Your task to perform on an android device: toggle pop-ups in chrome Image 0: 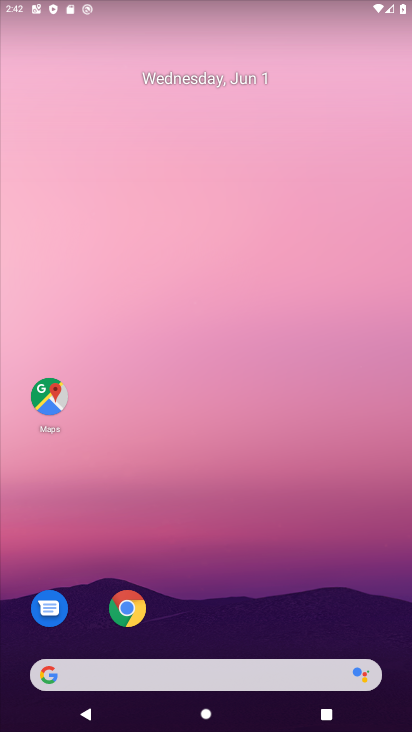
Step 0: click (124, 612)
Your task to perform on an android device: toggle pop-ups in chrome Image 1: 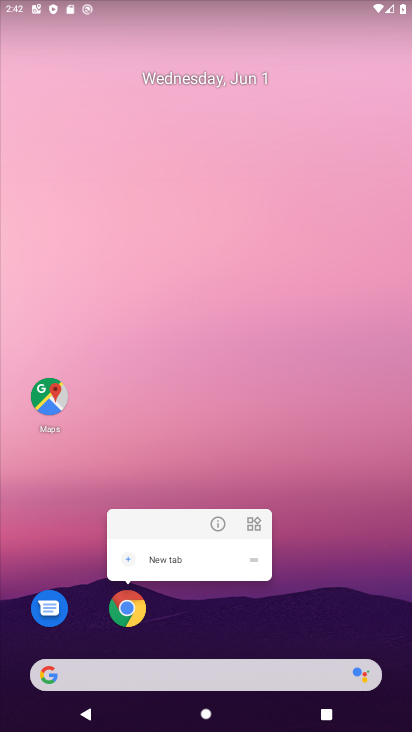
Step 1: click (124, 612)
Your task to perform on an android device: toggle pop-ups in chrome Image 2: 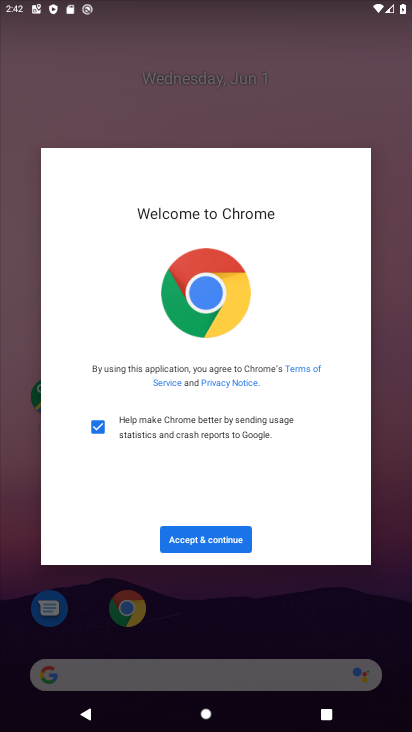
Step 2: click (221, 538)
Your task to perform on an android device: toggle pop-ups in chrome Image 3: 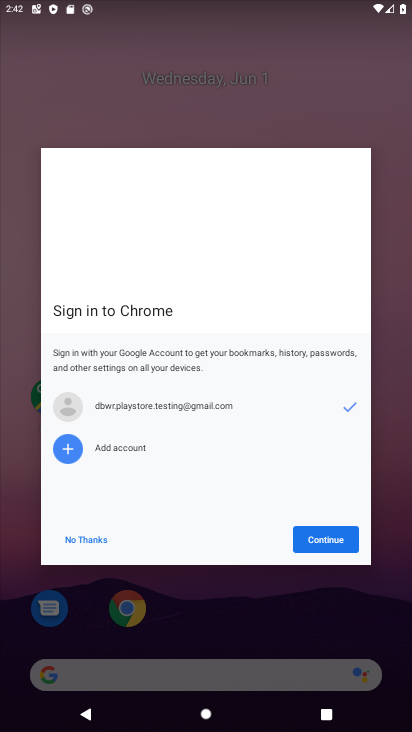
Step 3: click (344, 532)
Your task to perform on an android device: toggle pop-ups in chrome Image 4: 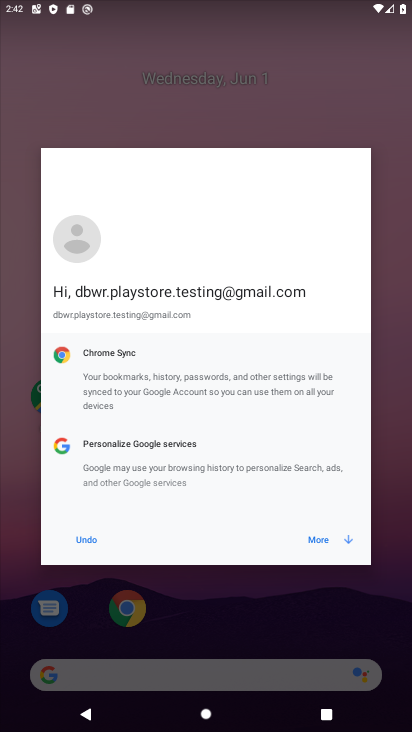
Step 4: click (343, 540)
Your task to perform on an android device: toggle pop-ups in chrome Image 5: 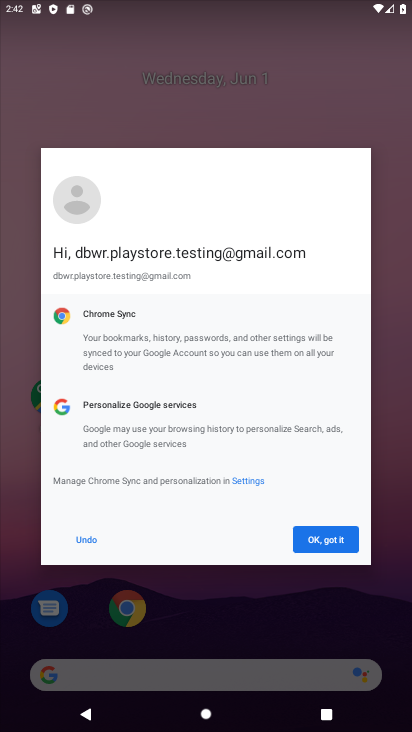
Step 5: click (343, 540)
Your task to perform on an android device: toggle pop-ups in chrome Image 6: 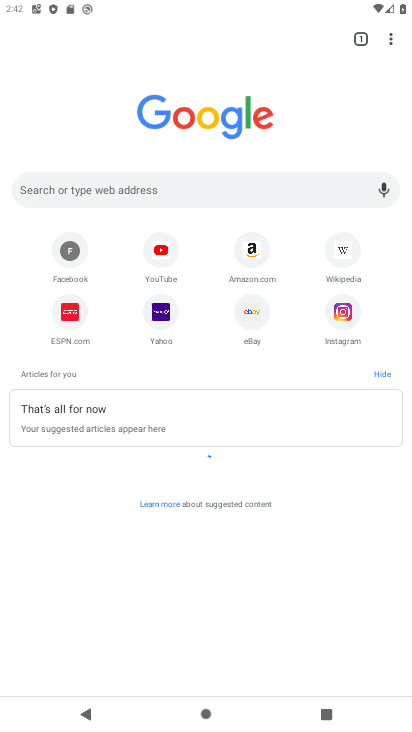
Step 6: drag from (398, 49) to (310, 327)
Your task to perform on an android device: toggle pop-ups in chrome Image 7: 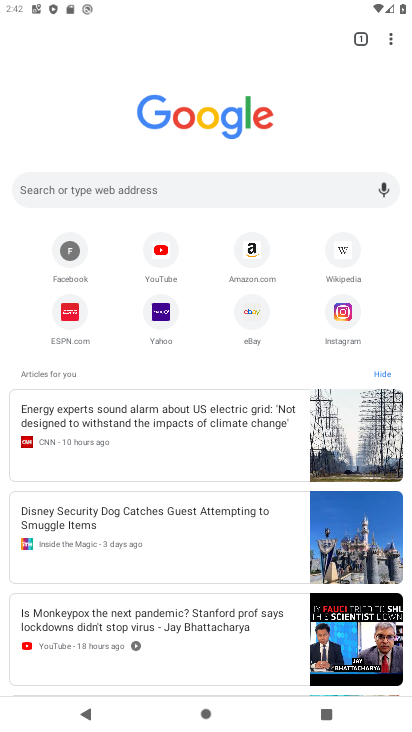
Step 7: drag from (281, 331) to (403, 244)
Your task to perform on an android device: toggle pop-ups in chrome Image 8: 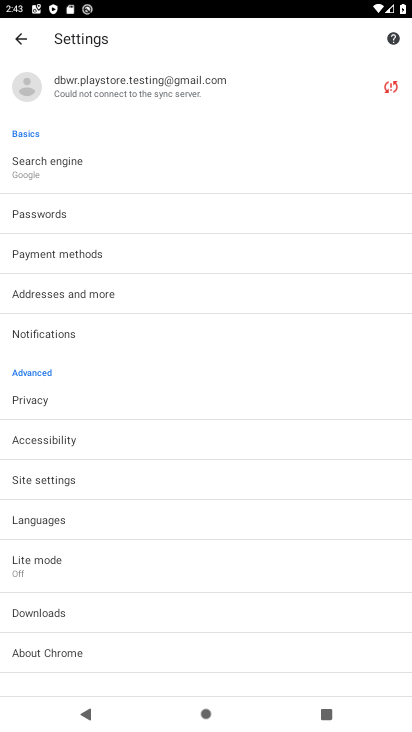
Step 8: click (117, 484)
Your task to perform on an android device: toggle pop-ups in chrome Image 9: 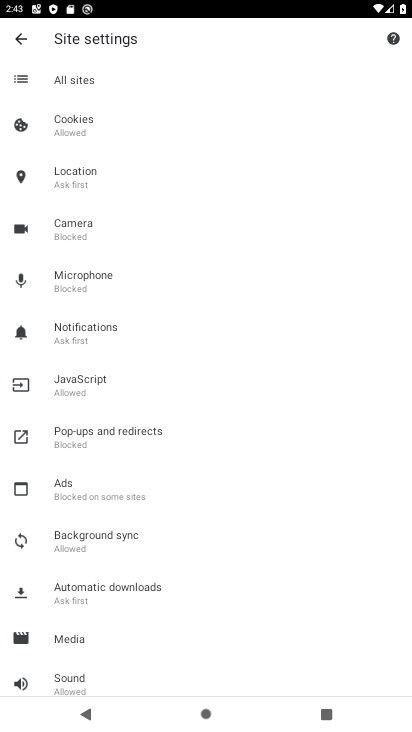
Step 9: click (172, 432)
Your task to perform on an android device: toggle pop-ups in chrome Image 10: 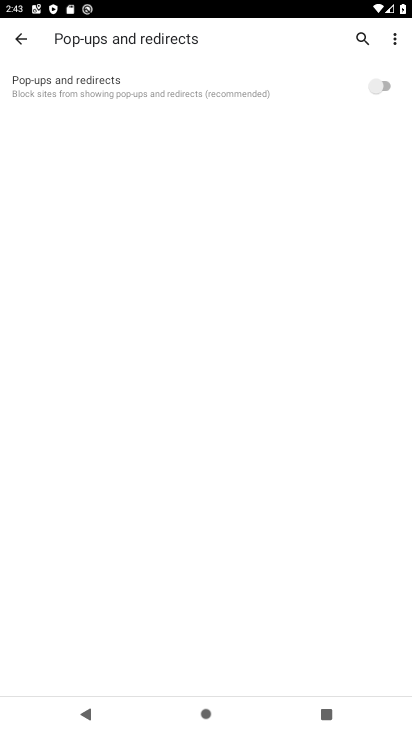
Step 10: click (384, 83)
Your task to perform on an android device: toggle pop-ups in chrome Image 11: 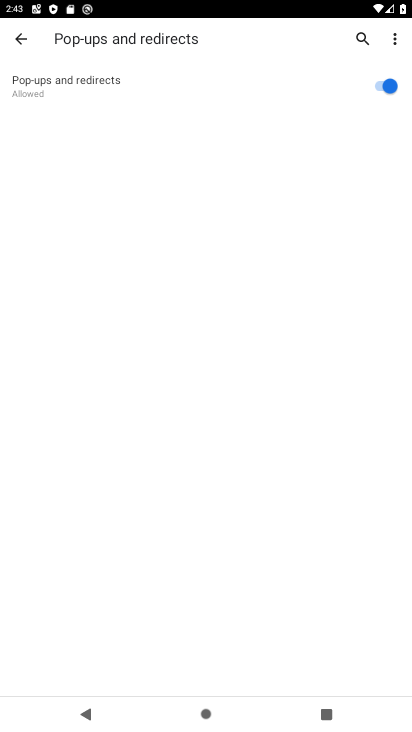
Step 11: task complete